Your task to perform on an android device: Open battery settings Image 0: 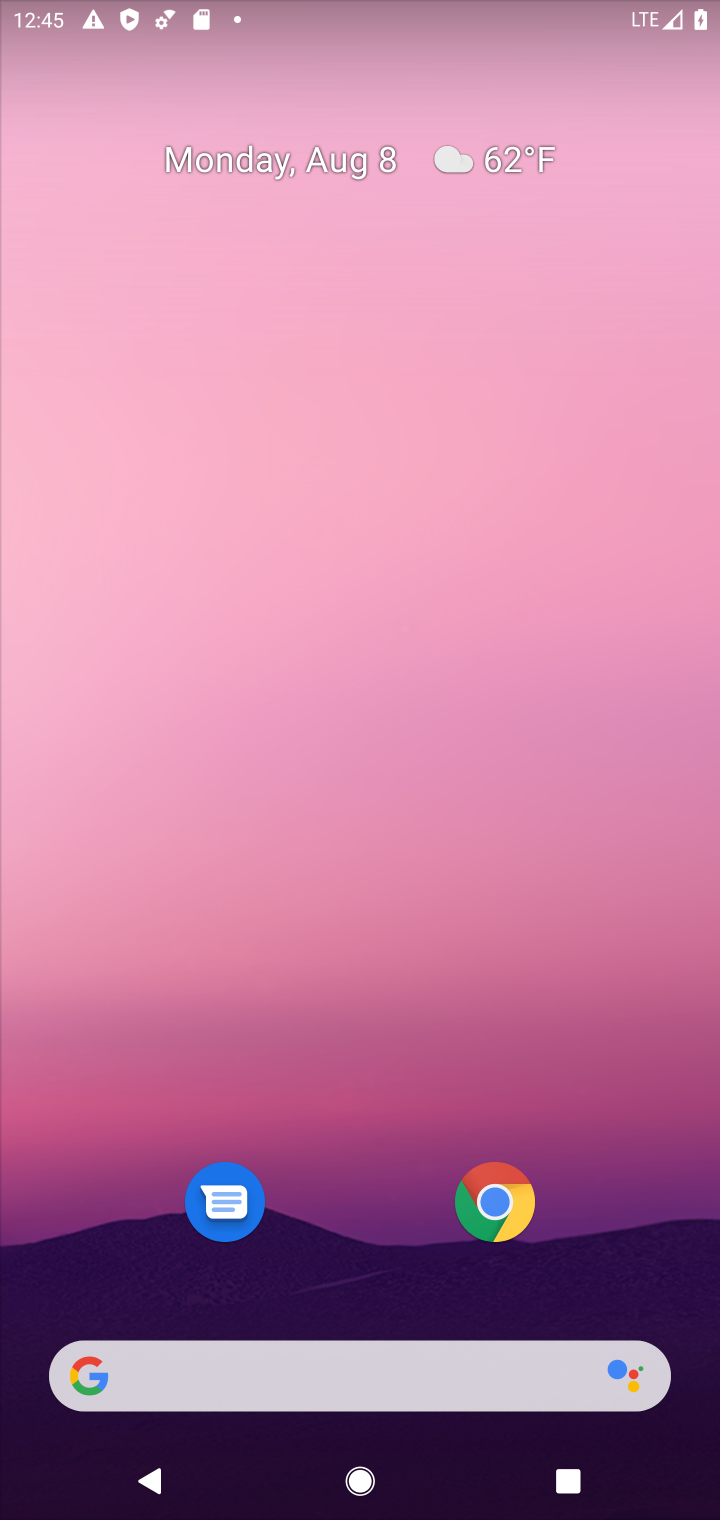
Step 0: drag from (326, 703) to (281, 156)
Your task to perform on an android device: Open battery settings Image 1: 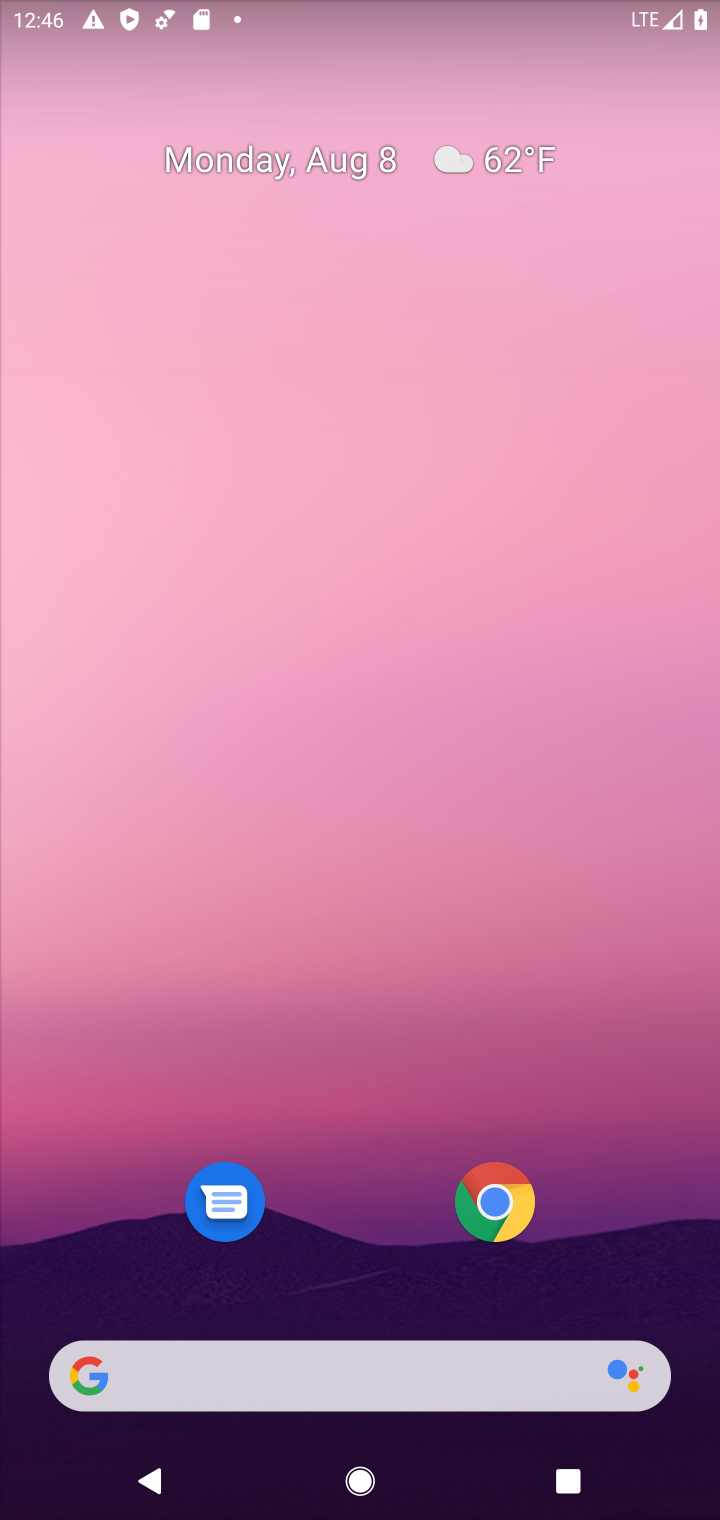
Step 1: drag from (397, 117) to (429, 1)
Your task to perform on an android device: Open battery settings Image 2: 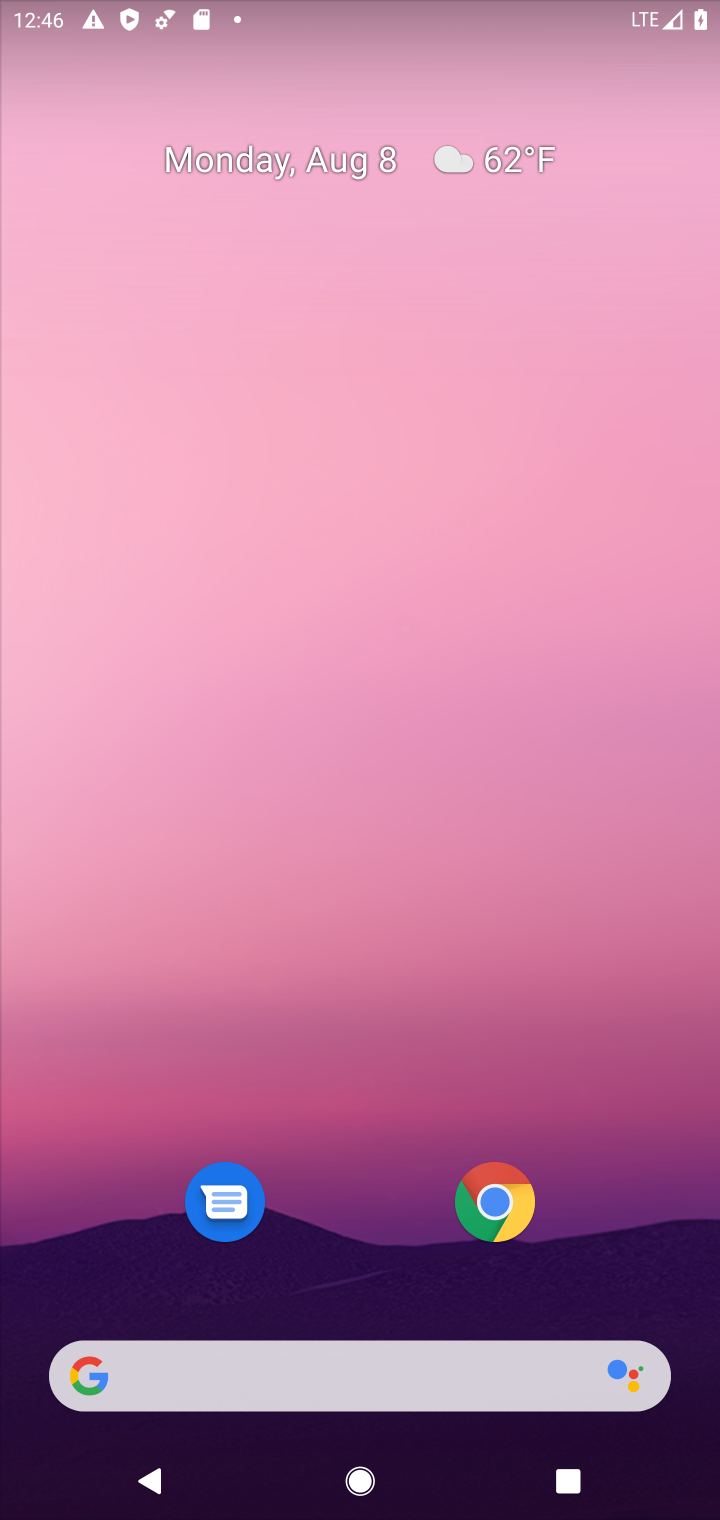
Step 2: drag from (327, 318) to (364, 249)
Your task to perform on an android device: Open battery settings Image 3: 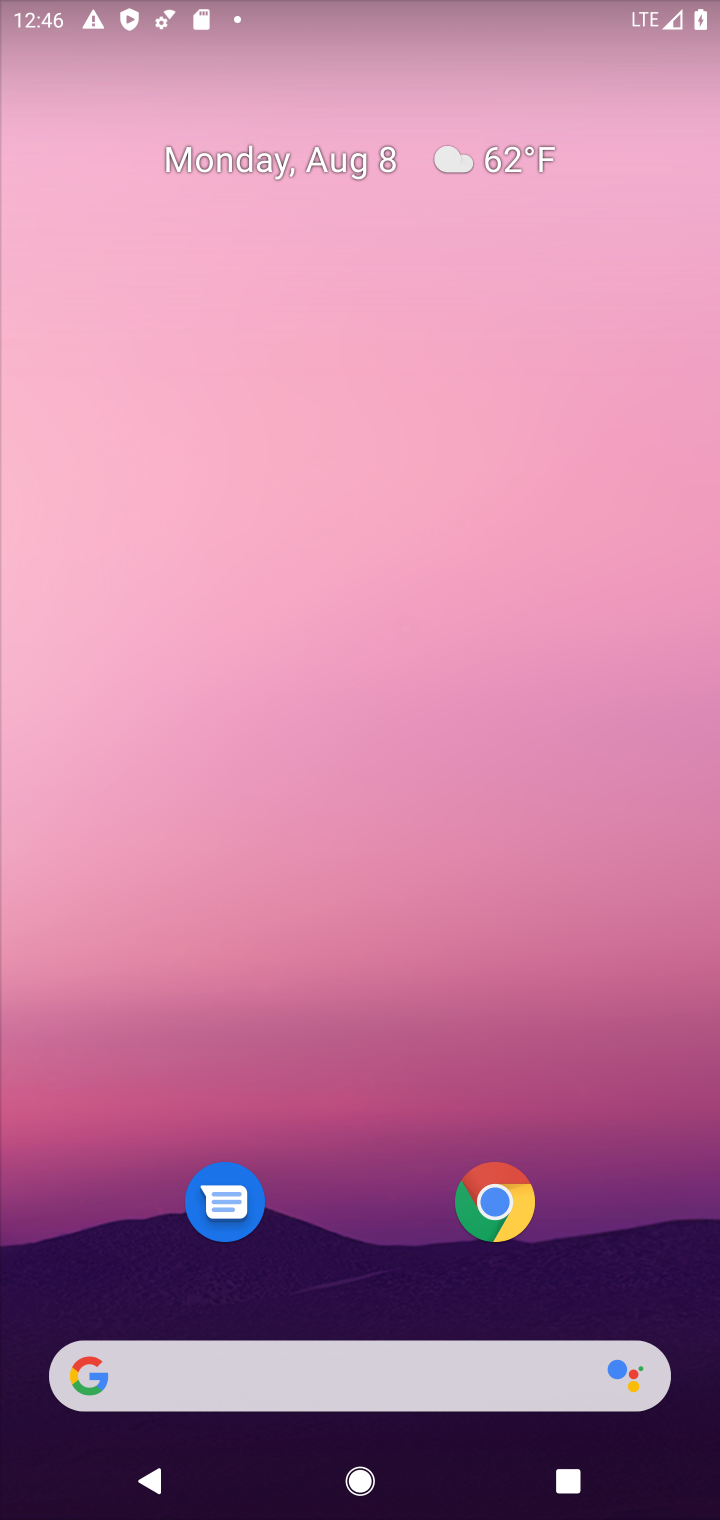
Step 3: drag from (284, 205) to (303, 61)
Your task to perform on an android device: Open battery settings Image 4: 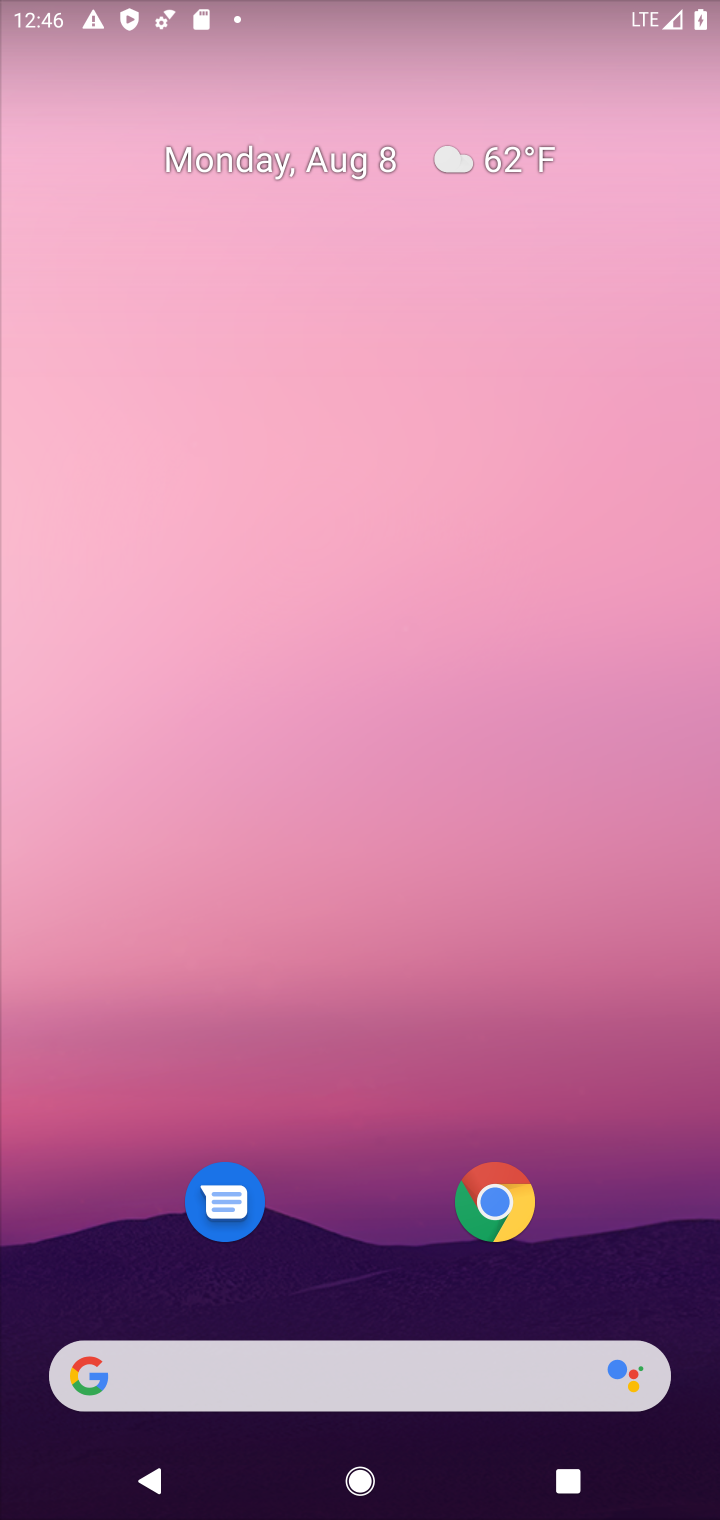
Step 4: click (328, 69)
Your task to perform on an android device: Open battery settings Image 5: 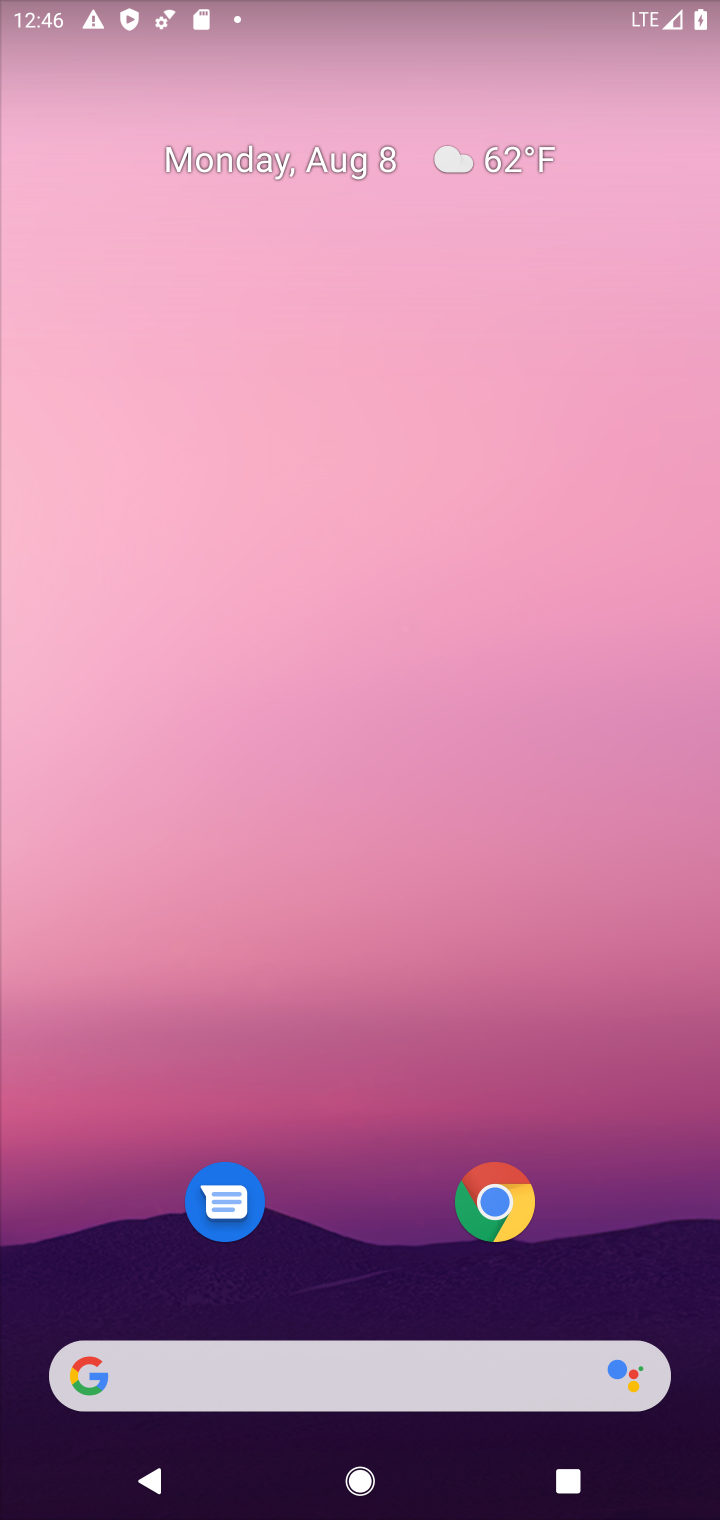
Step 5: drag from (390, 225) to (402, 30)
Your task to perform on an android device: Open battery settings Image 6: 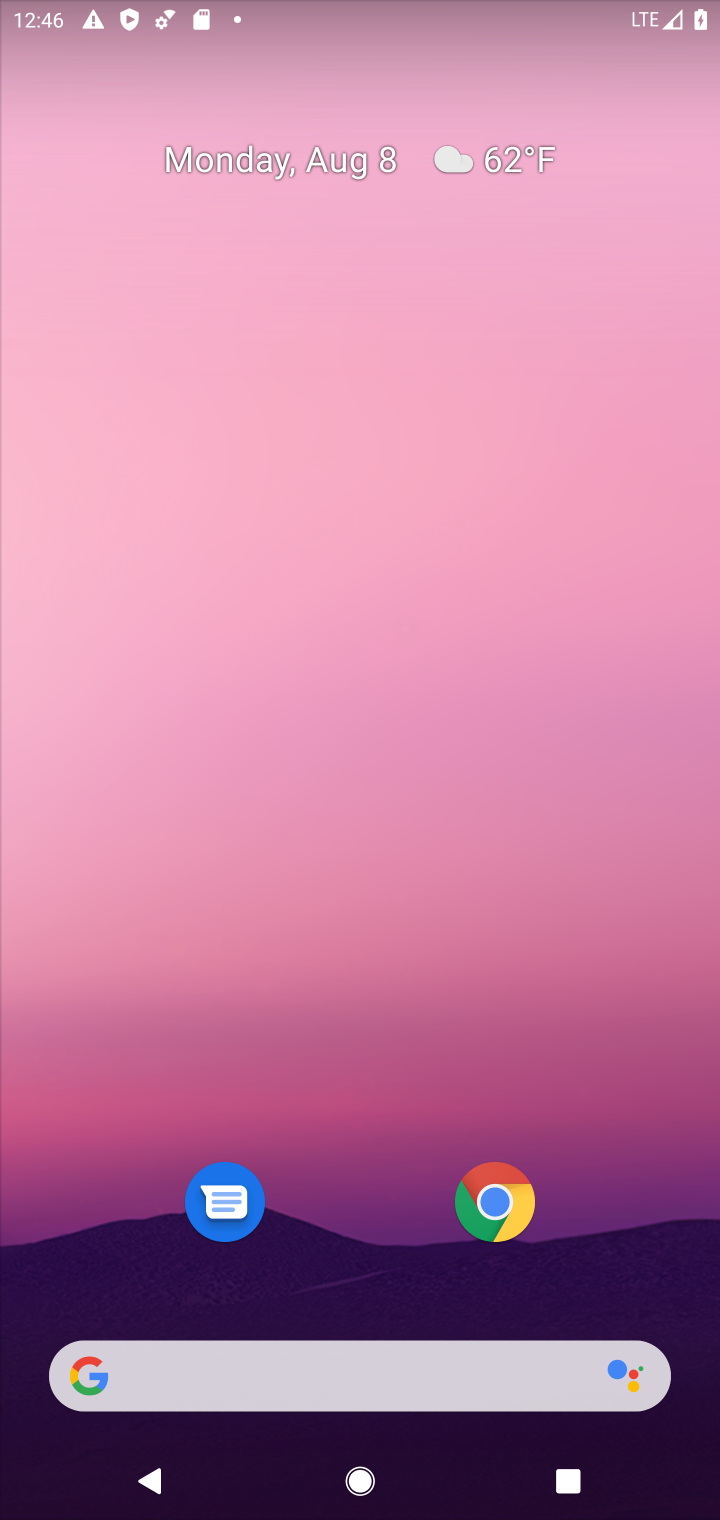
Step 6: drag from (370, 976) to (492, 56)
Your task to perform on an android device: Open battery settings Image 7: 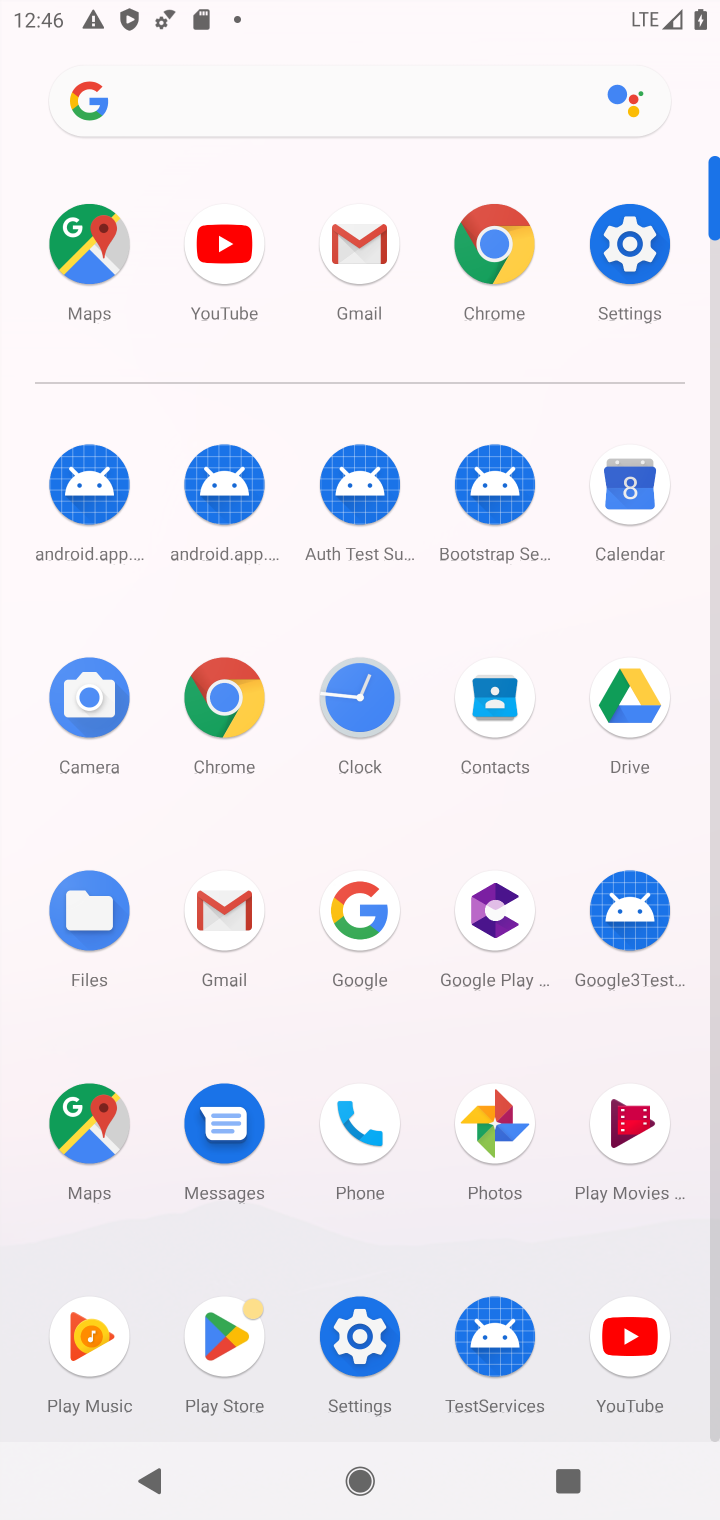
Step 7: click (358, 1337)
Your task to perform on an android device: Open battery settings Image 8: 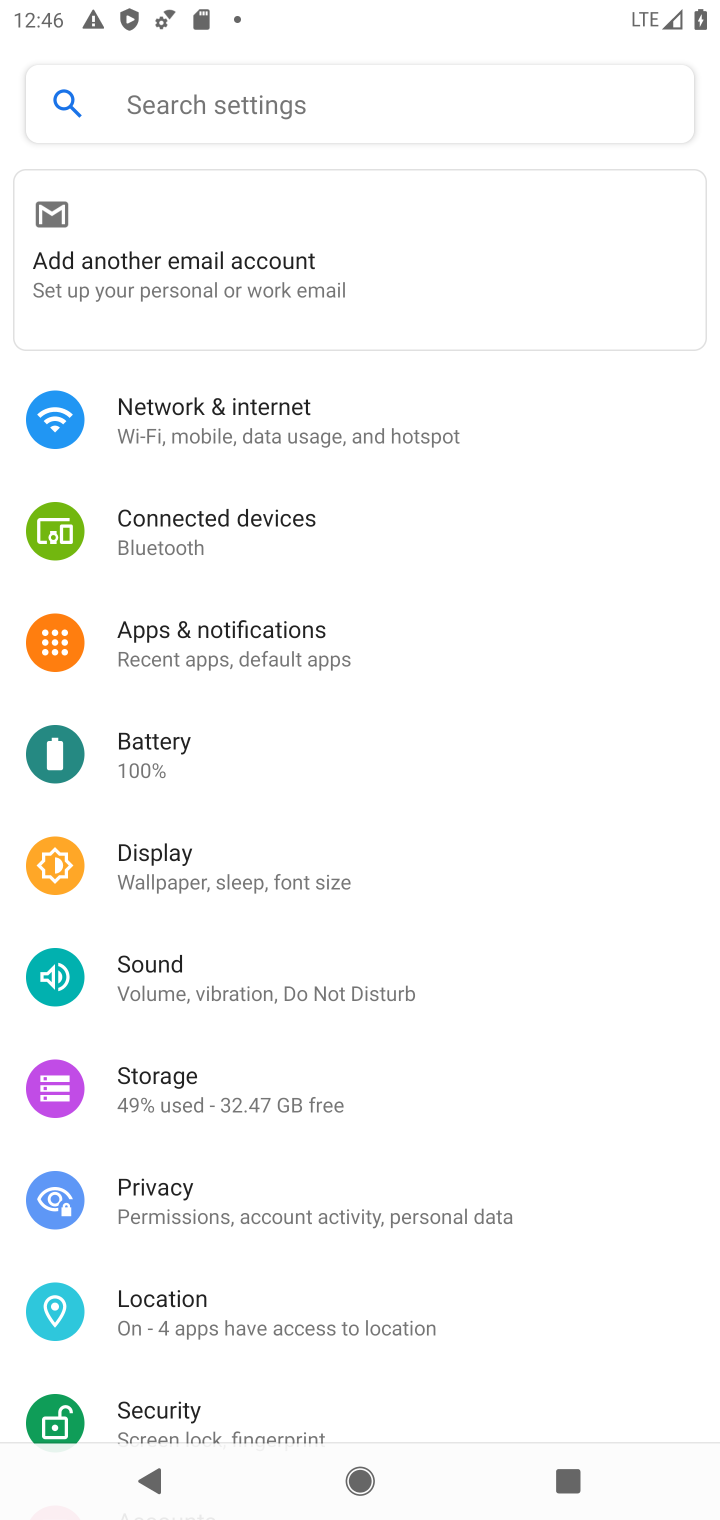
Step 8: click (150, 749)
Your task to perform on an android device: Open battery settings Image 9: 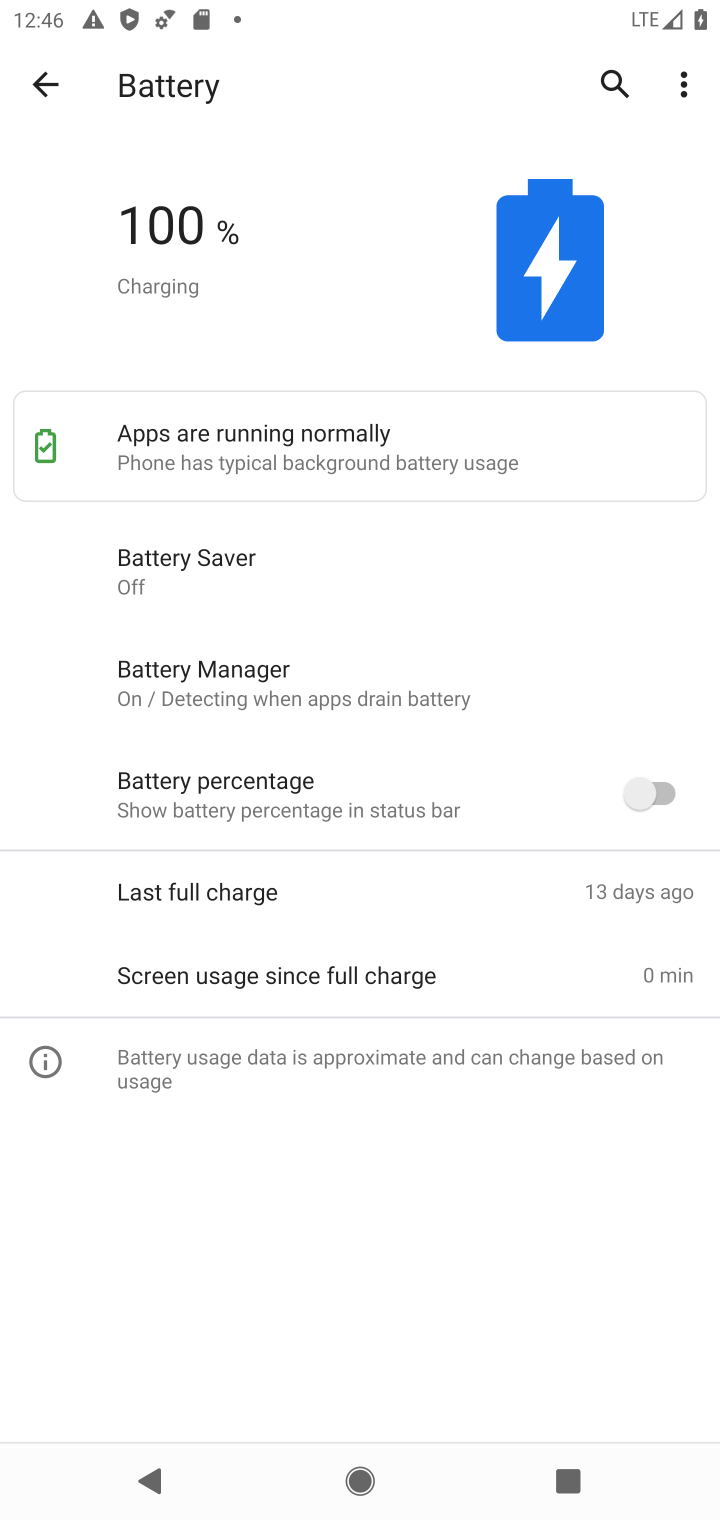
Step 9: task complete